Your task to perform on an android device: turn off improve location accuracy Image 0: 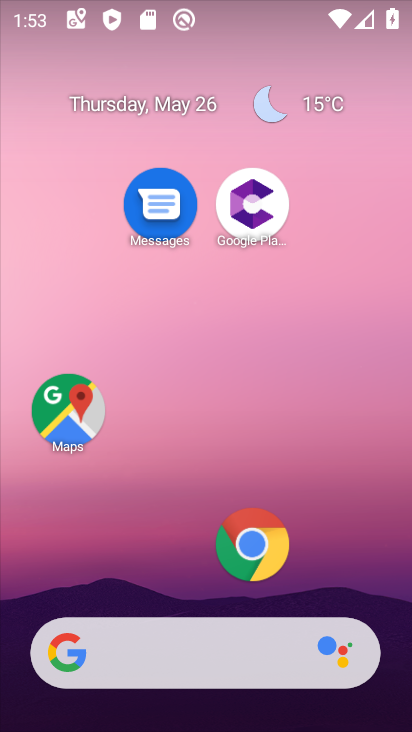
Step 0: drag from (172, 573) to (206, 74)
Your task to perform on an android device: turn off improve location accuracy Image 1: 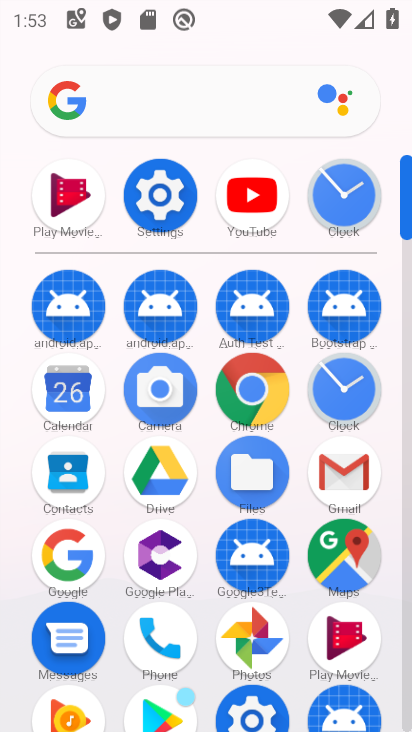
Step 1: click (161, 195)
Your task to perform on an android device: turn off improve location accuracy Image 2: 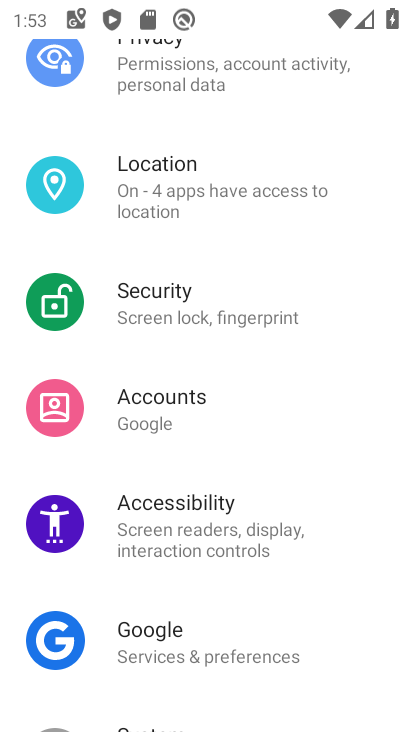
Step 2: click (161, 195)
Your task to perform on an android device: turn off improve location accuracy Image 3: 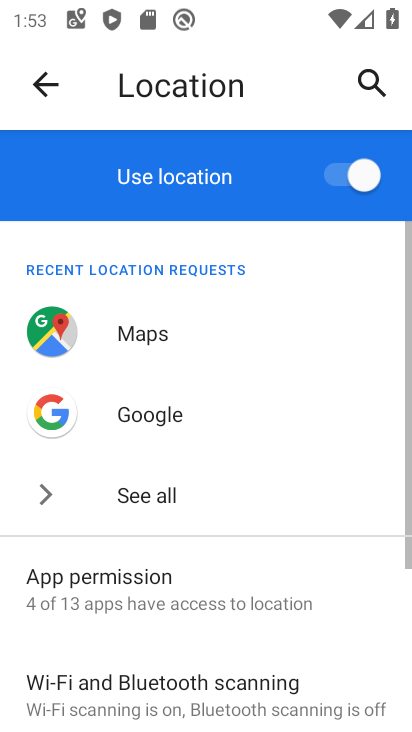
Step 3: drag from (158, 673) to (207, 113)
Your task to perform on an android device: turn off improve location accuracy Image 4: 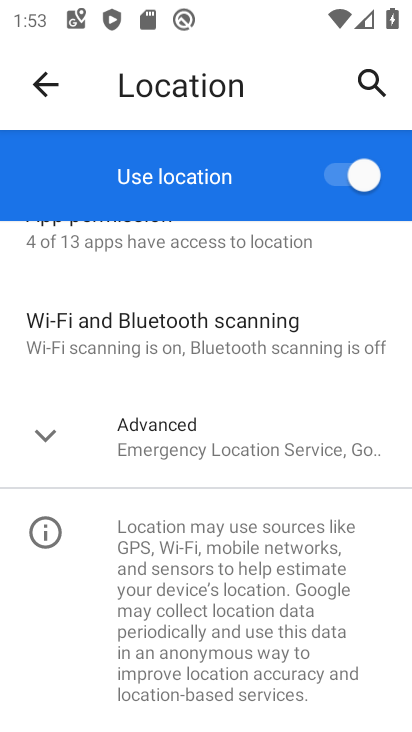
Step 4: click (118, 464)
Your task to perform on an android device: turn off improve location accuracy Image 5: 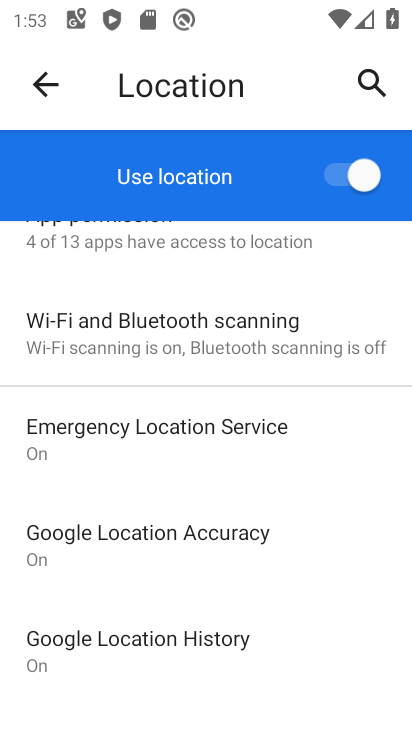
Step 5: click (148, 547)
Your task to perform on an android device: turn off improve location accuracy Image 6: 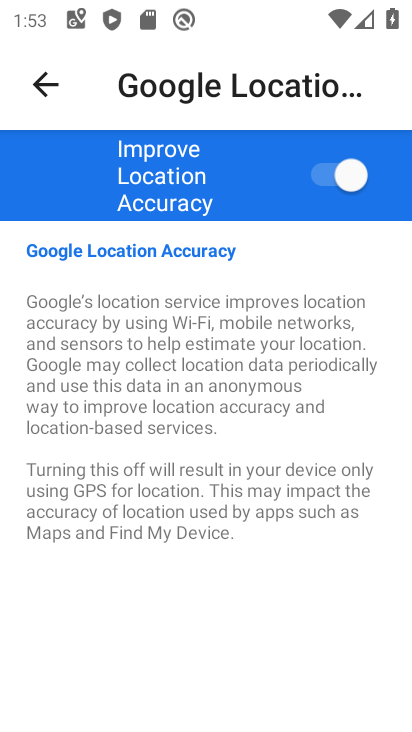
Step 6: click (326, 189)
Your task to perform on an android device: turn off improve location accuracy Image 7: 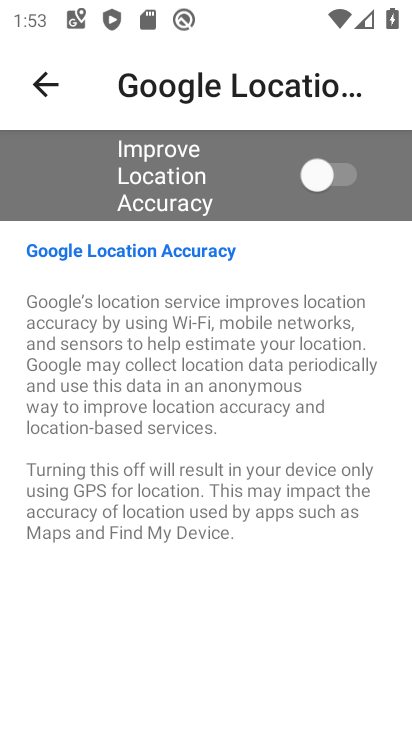
Step 7: task complete